Your task to perform on an android device: Open Google Maps Image 0: 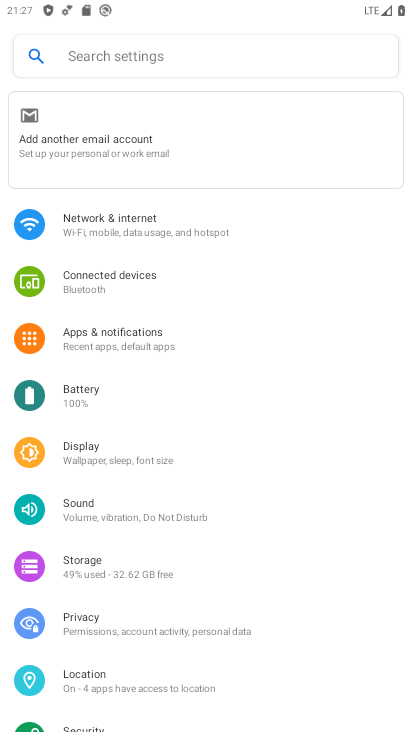
Step 0: press home button
Your task to perform on an android device: Open Google Maps Image 1: 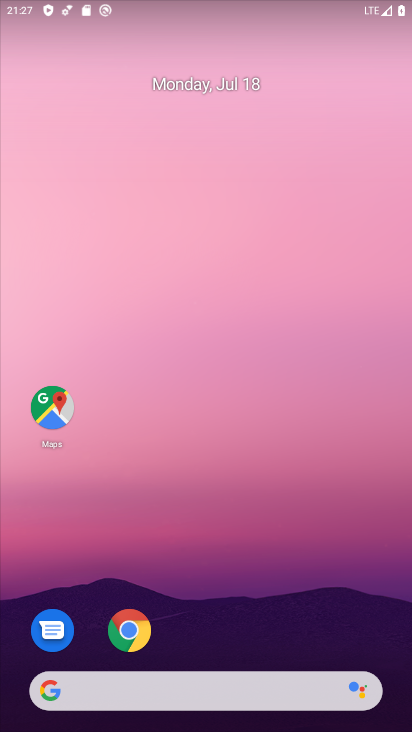
Step 1: click (52, 417)
Your task to perform on an android device: Open Google Maps Image 2: 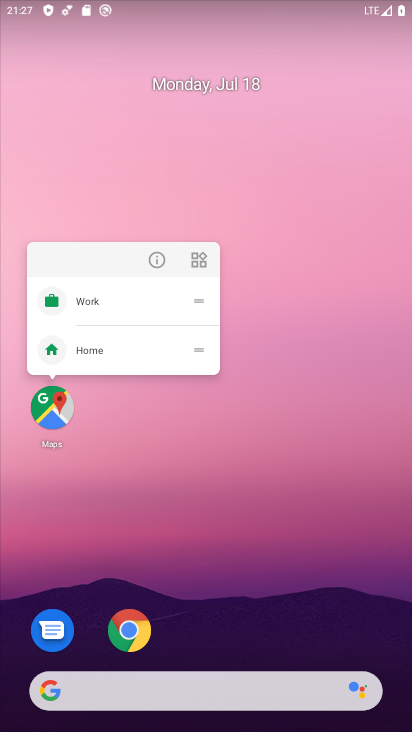
Step 2: click (40, 424)
Your task to perform on an android device: Open Google Maps Image 3: 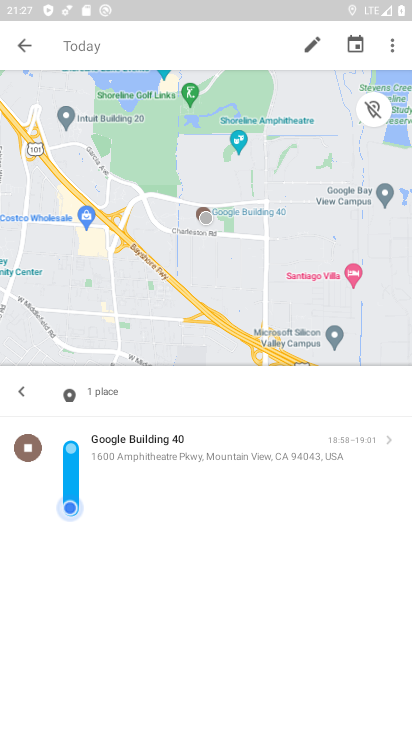
Step 3: click (18, 52)
Your task to perform on an android device: Open Google Maps Image 4: 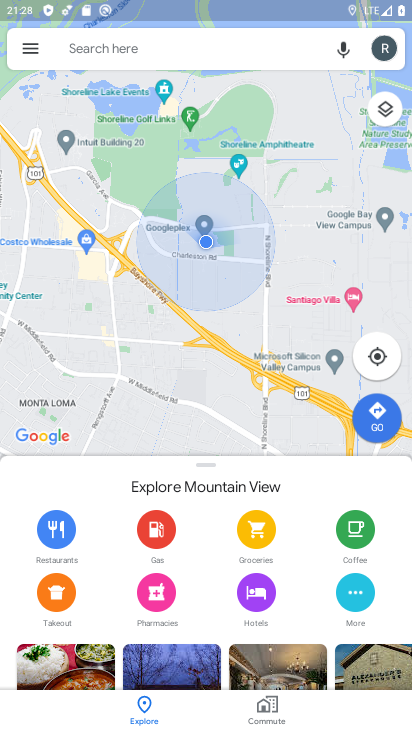
Step 4: task complete